Your task to perform on an android device: see tabs open on other devices in the chrome app Image 0: 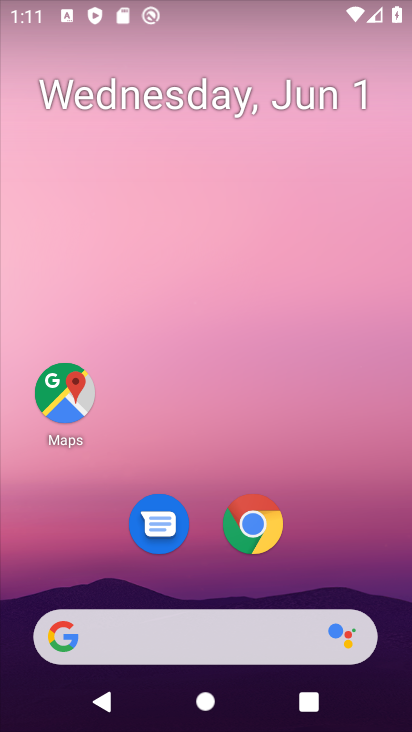
Step 0: click (260, 523)
Your task to perform on an android device: see tabs open on other devices in the chrome app Image 1: 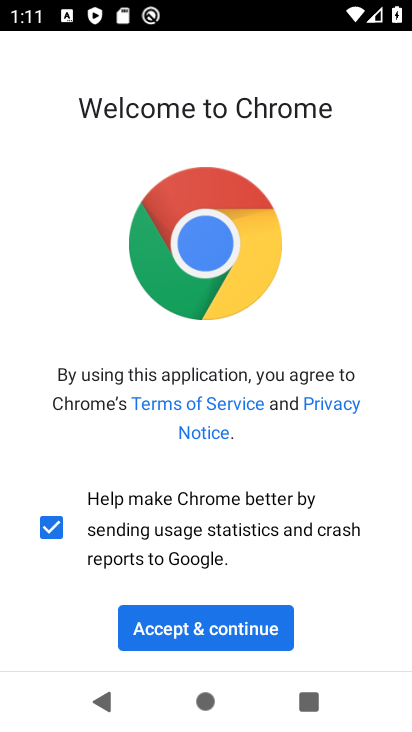
Step 1: click (246, 625)
Your task to perform on an android device: see tabs open on other devices in the chrome app Image 2: 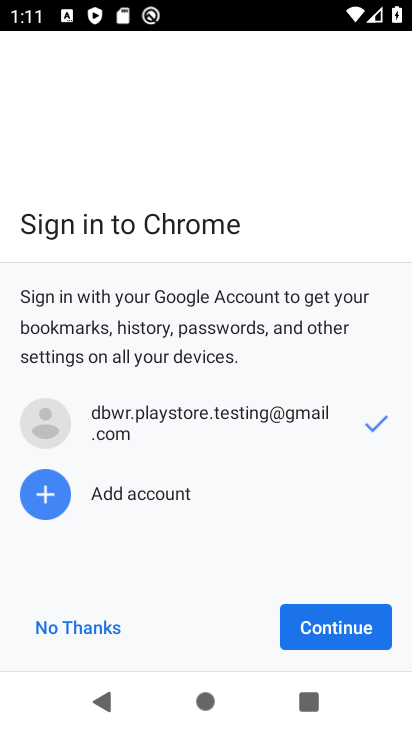
Step 2: click (302, 622)
Your task to perform on an android device: see tabs open on other devices in the chrome app Image 3: 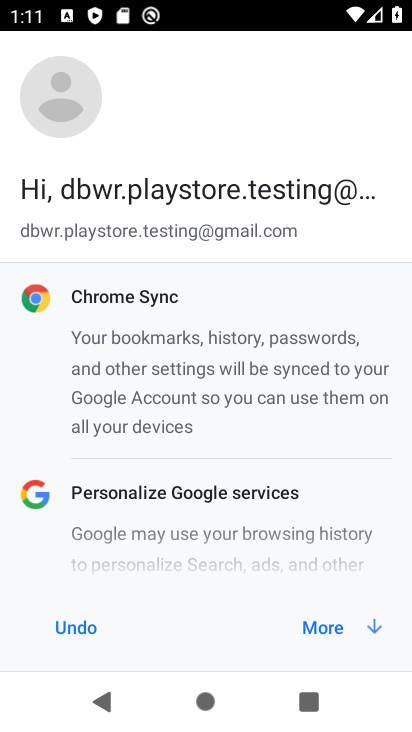
Step 3: click (320, 624)
Your task to perform on an android device: see tabs open on other devices in the chrome app Image 4: 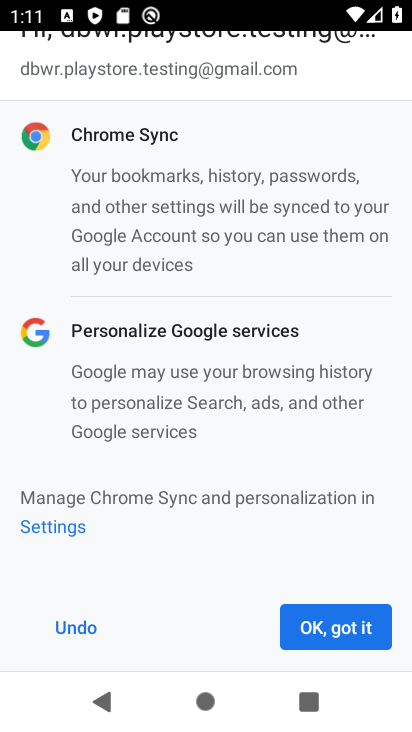
Step 4: click (320, 624)
Your task to perform on an android device: see tabs open on other devices in the chrome app Image 5: 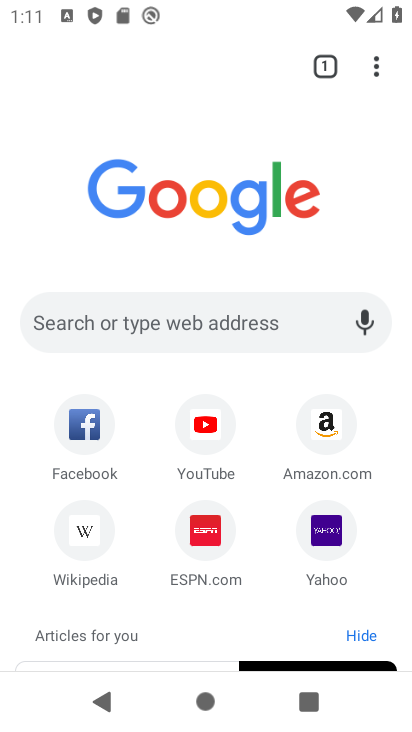
Step 5: click (373, 64)
Your task to perform on an android device: see tabs open on other devices in the chrome app Image 6: 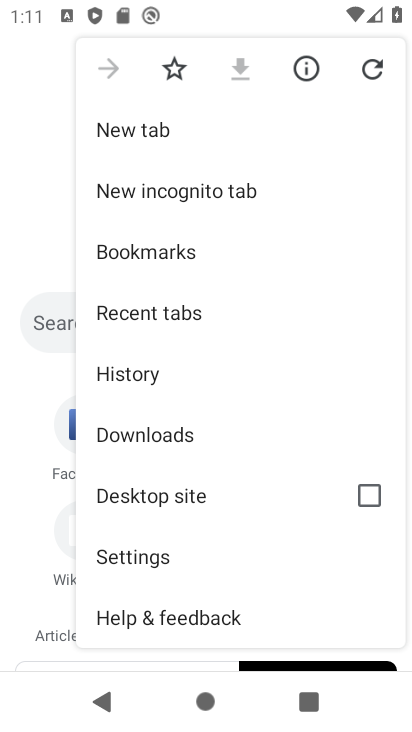
Step 6: click (194, 311)
Your task to perform on an android device: see tabs open on other devices in the chrome app Image 7: 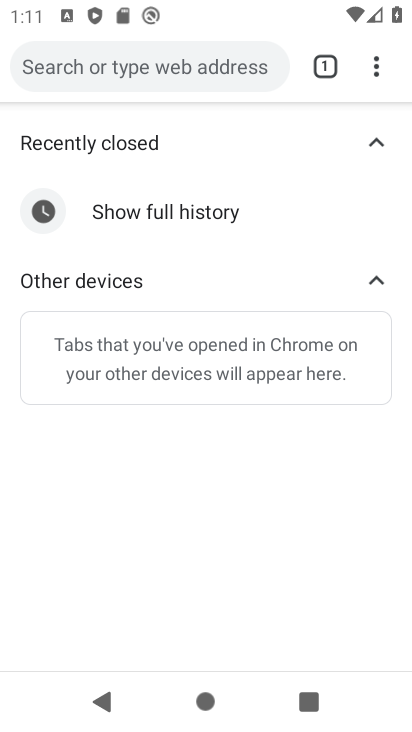
Step 7: task complete